Your task to perform on an android device: Open calendar and show me the fourth week of next month Image 0: 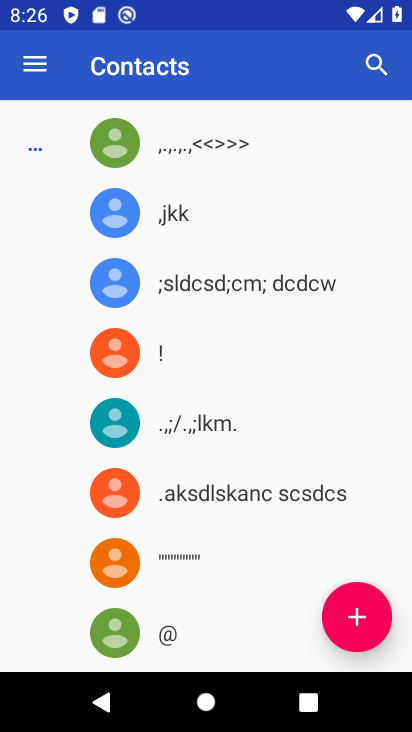
Step 0: press home button
Your task to perform on an android device: Open calendar and show me the fourth week of next month Image 1: 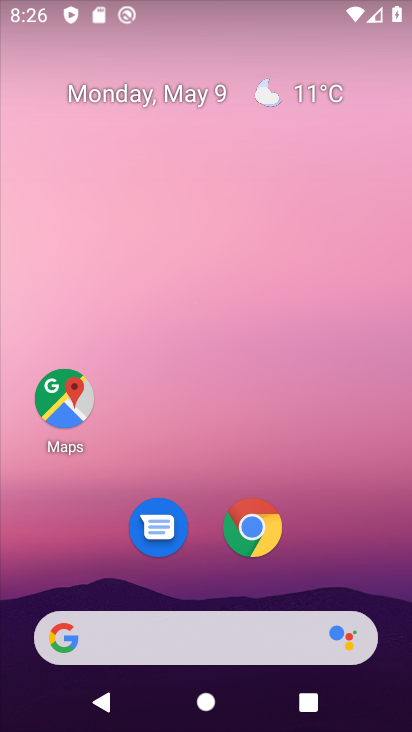
Step 1: drag from (203, 570) to (224, 191)
Your task to perform on an android device: Open calendar and show me the fourth week of next month Image 2: 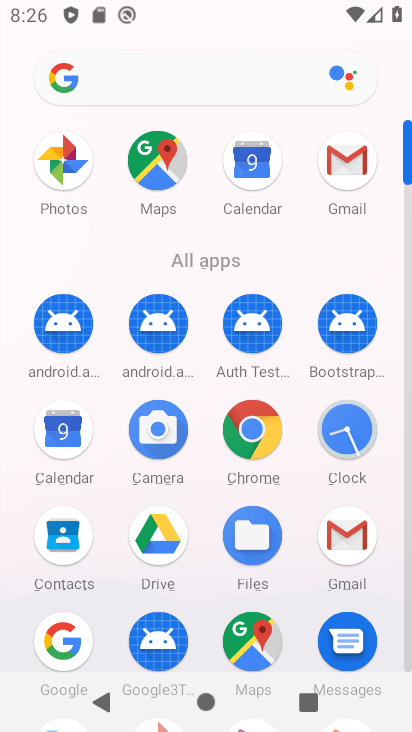
Step 2: click (65, 435)
Your task to perform on an android device: Open calendar and show me the fourth week of next month Image 3: 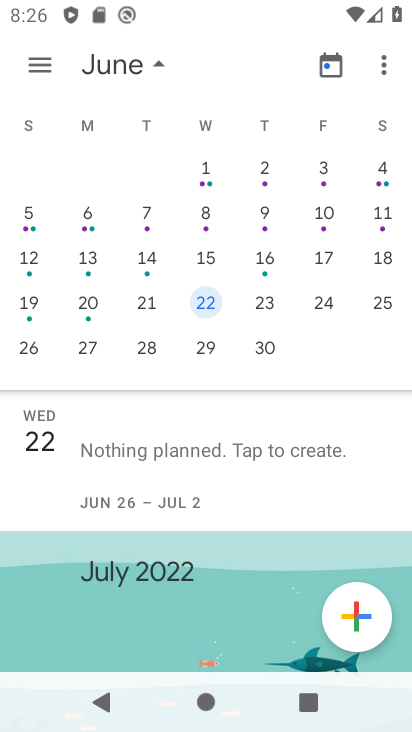
Step 3: click (260, 308)
Your task to perform on an android device: Open calendar and show me the fourth week of next month Image 4: 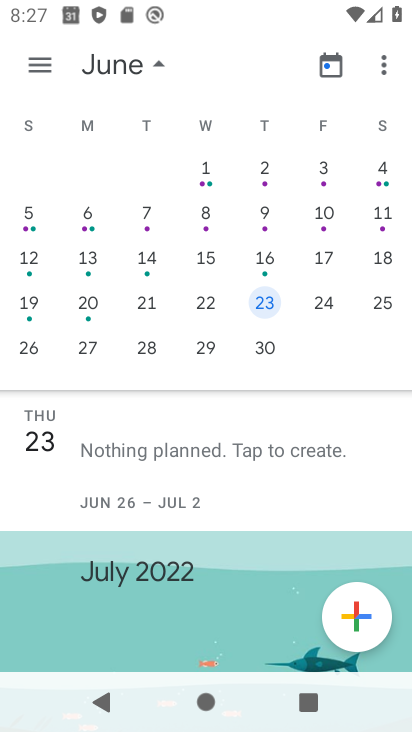
Step 4: task complete